Your task to perform on an android device: toggle improve location accuracy Image 0: 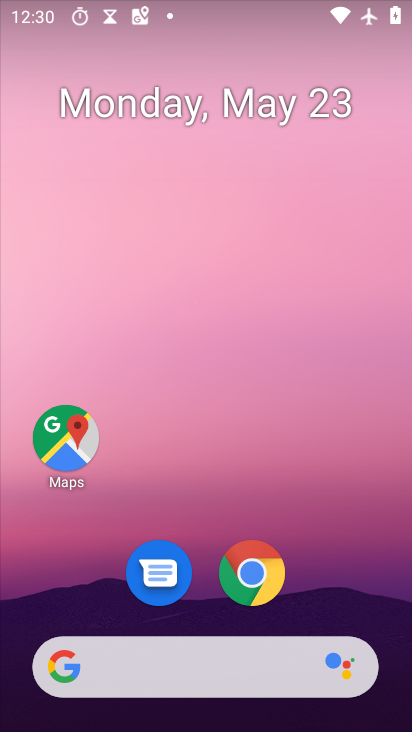
Step 0: press home button
Your task to perform on an android device: toggle improve location accuracy Image 1: 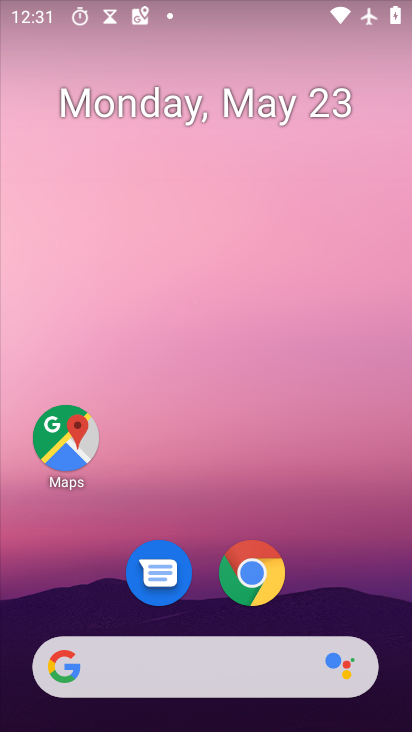
Step 1: drag from (181, 659) to (324, 54)
Your task to perform on an android device: toggle improve location accuracy Image 2: 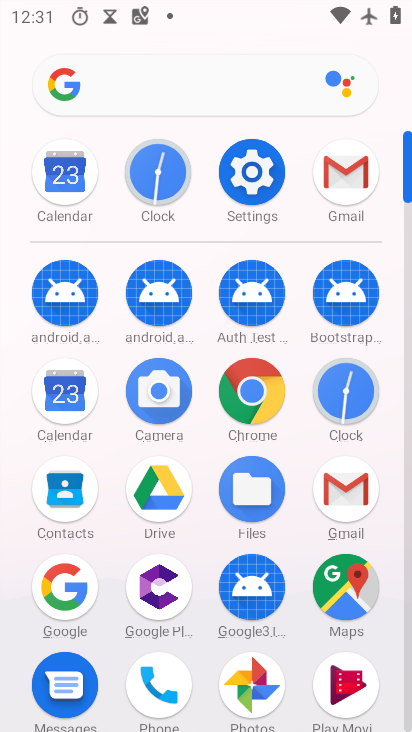
Step 2: click (272, 186)
Your task to perform on an android device: toggle improve location accuracy Image 3: 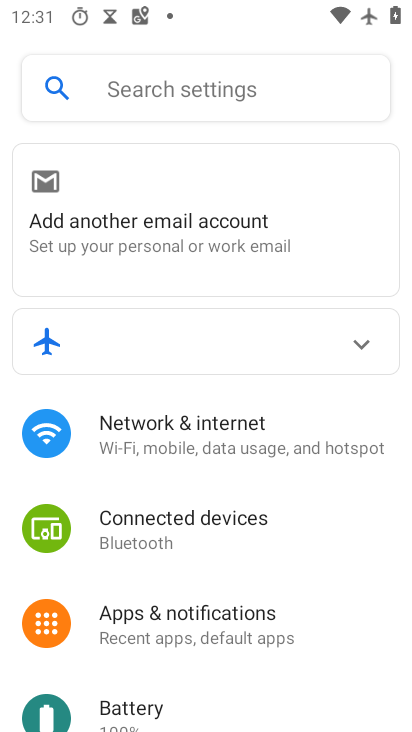
Step 3: drag from (238, 704) to (374, 299)
Your task to perform on an android device: toggle improve location accuracy Image 4: 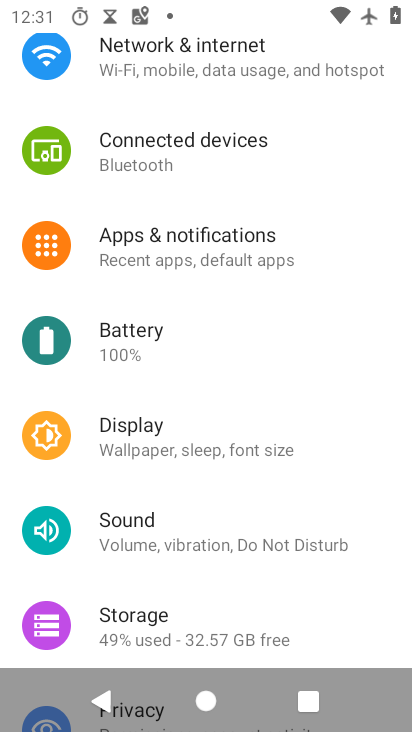
Step 4: drag from (252, 543) to (300, 171)
Your task to perform on an android device: toggle improve location accuracy Image 5: 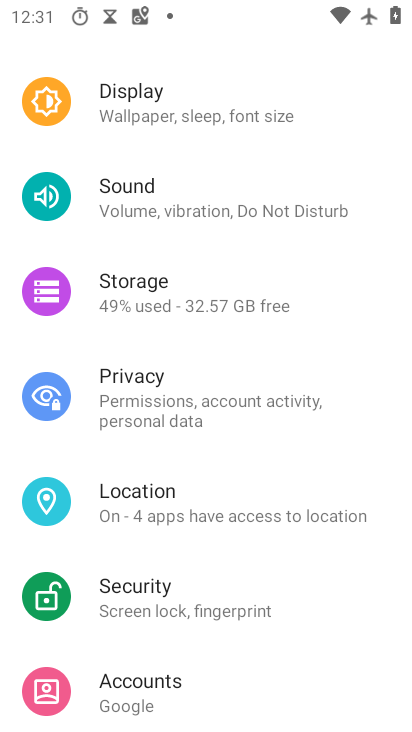
Step 5: click (160, 507)
Your task to perform on an android device: toggle improve location accuracy Image 6: 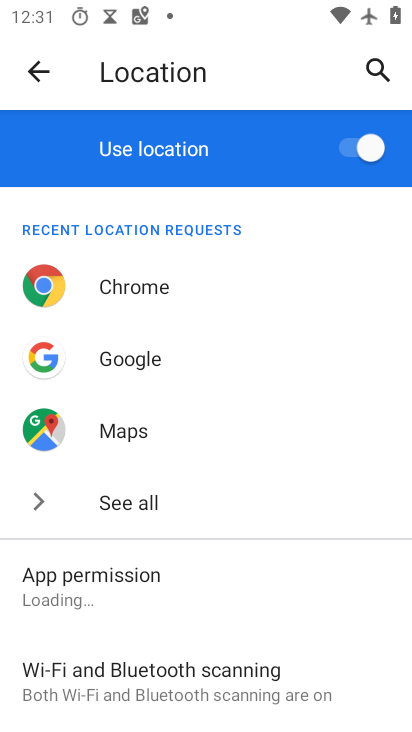
Step 6: drag from (179, 648) to (328, 251)
Your task to perform on an android device: toggle improve location accuracy Image 7: 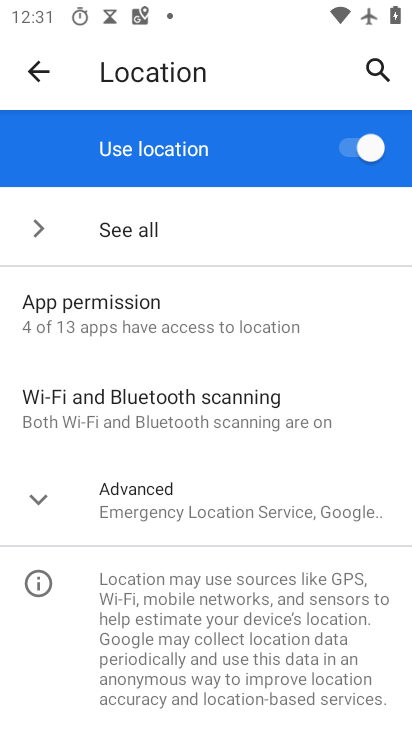
Step 7: click (145, 486)
Your task to perform on an android device: toggle improve location accuracy Image 8: 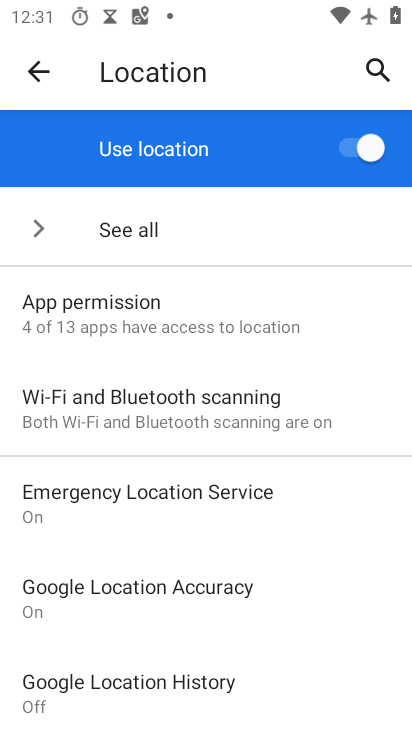
Step 8: click (185, 598)
Your task to perform on an android device: toggle improve location accuracy Image 9: 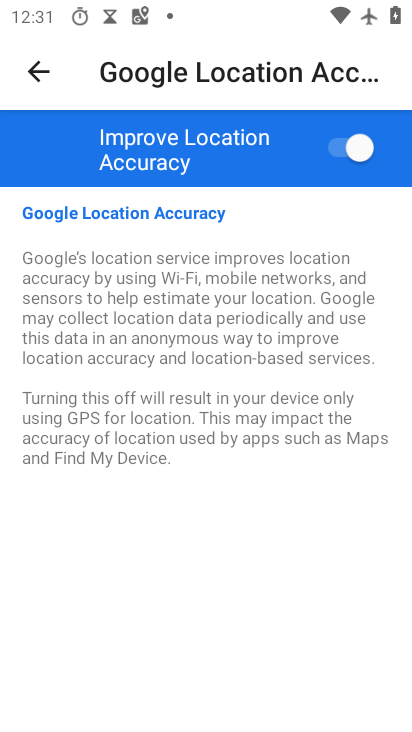
Step 9: click (338, 148)
Your task to perform on an android device: toggle improve location accuracy Image 10: 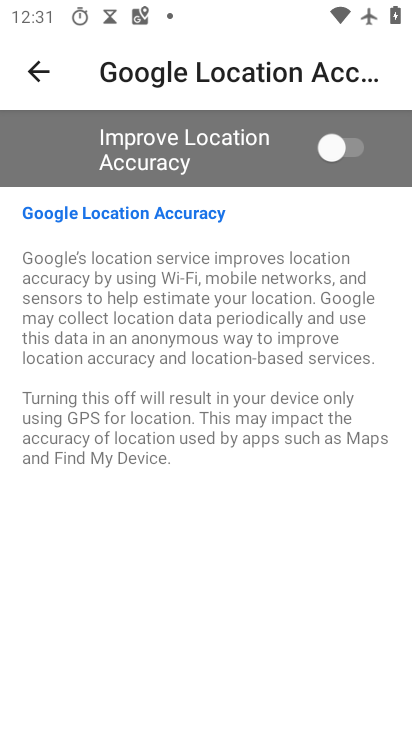
Step 10: task complete